Your task to perform on an android device: Go to privacy settings Image 0: 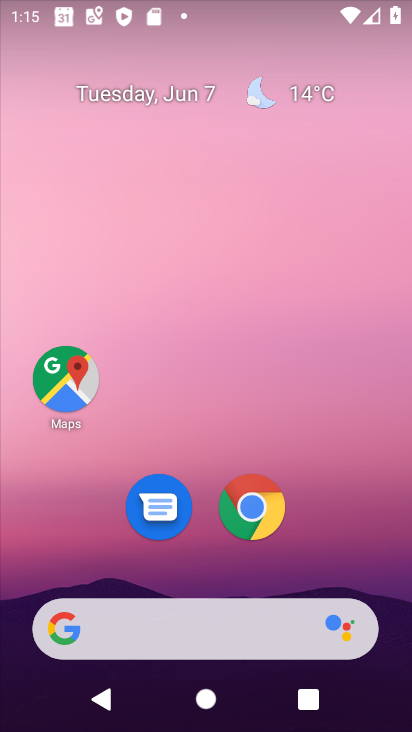
Step 0: drag from (395, 604) to (333, 86)
Your task to perform on an android device: Go to privacy settings Image 1: 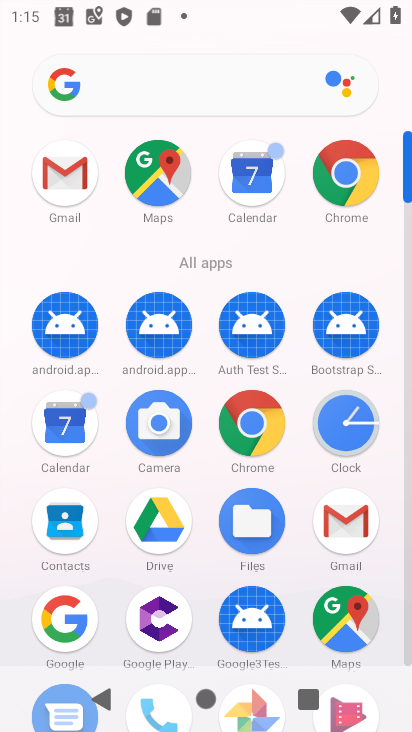
Step 1: click (407, 650)
Your task to perform on an android device: Go to privacy settings Image 2: 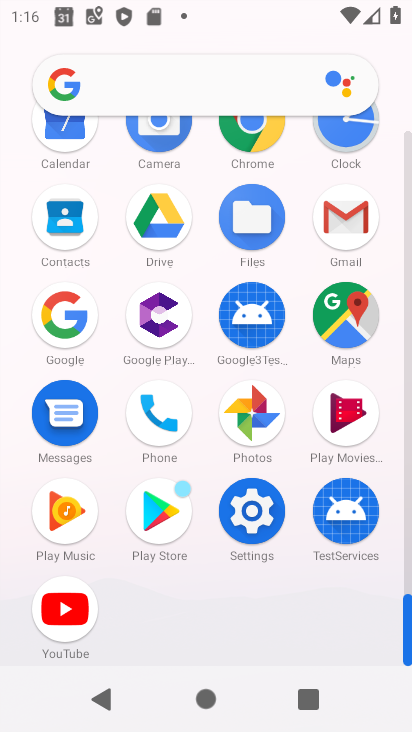
Step 2: click (246, 510)
Your task to perform on an android device: Go to privacy settings Image 3: 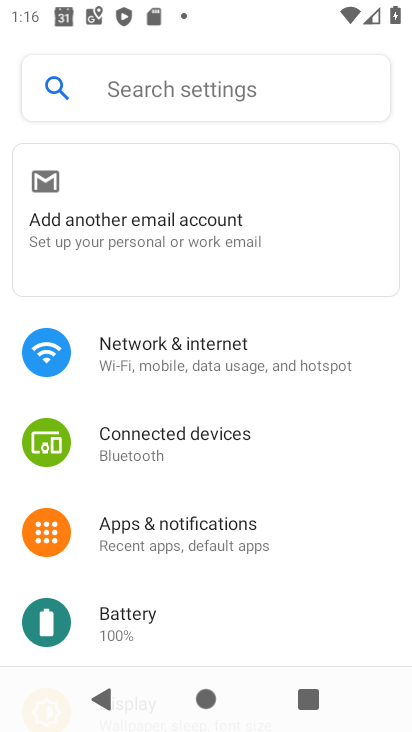
Step 3: drag from (276, 586) to (262, 130)
Your task to perform on an android device: Go to privacy settings Image 4: 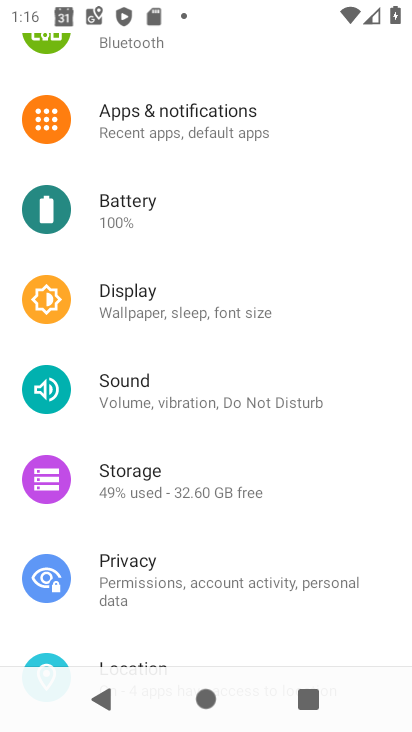
Step 4: drag from (288, 573) to (239, 172)
Your task to perform on an android device: Go to privacy settings Image 5: 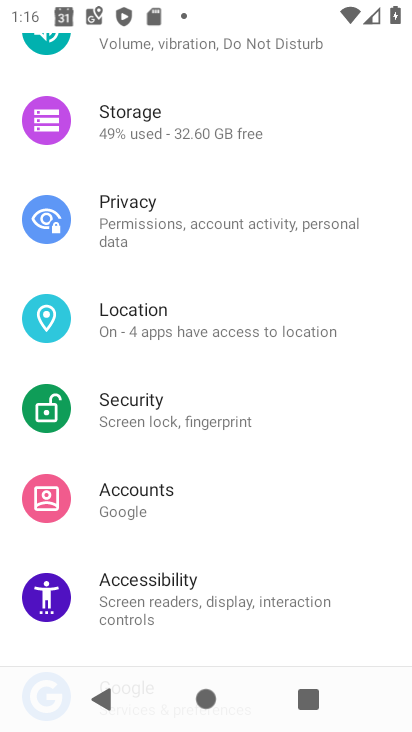
Step 5: click (144, 208)
Your task to perform on an android device: Go to privacy settings Image 6: 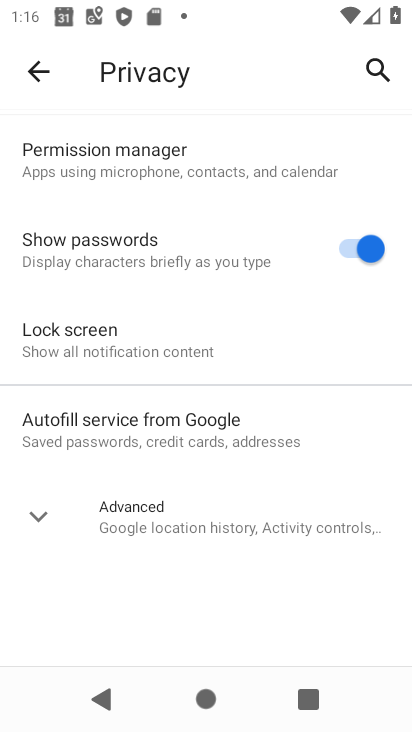
Step 6: click (40, 511)
Your task to perform on an android device: Go to privacy settings Image 7: 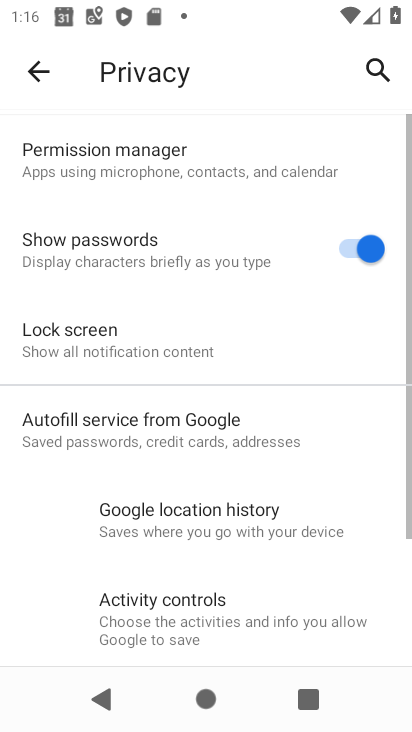
Step 7: task complete